Your task to perform on an android device: Search for Italian restaurants on Maps Image 0: 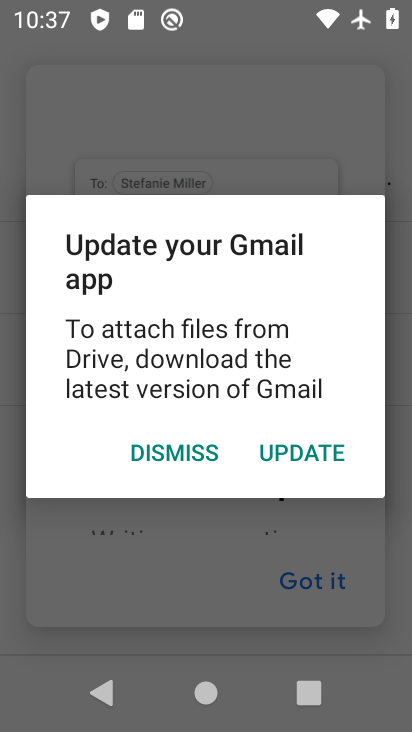
Step 0: press home button
Your task to perform on an android device: Search for Italian restaurants on Maps Image 1: 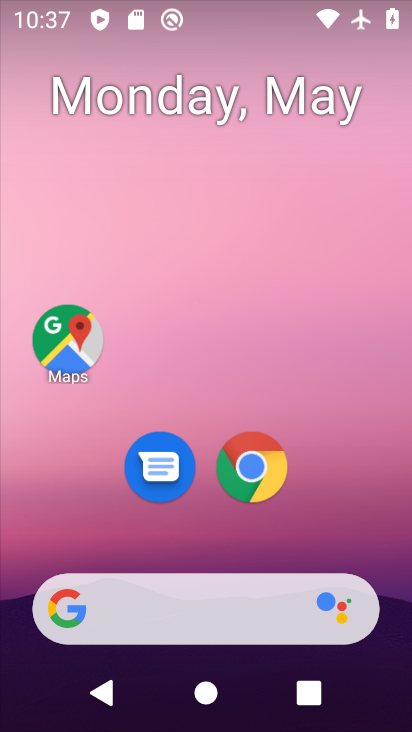
Step 1: click (60, 331)
Your task to perform on an android device: Search for Italian restaurants on Maps Image 2: 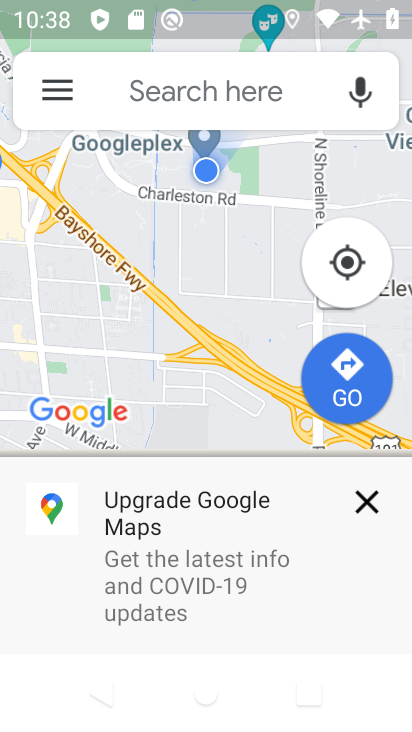
Step 2: click (172, 85)
Your task to perform on an android device: Search for Italian restaurants on Maps Image 3: 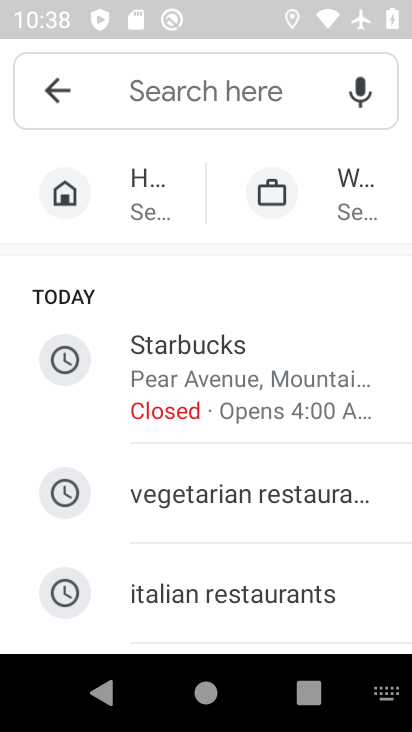
Step 3: type "italian restaurant"
Your task to perform on an android device: Search for Italian restaurants on Maps Image 4: 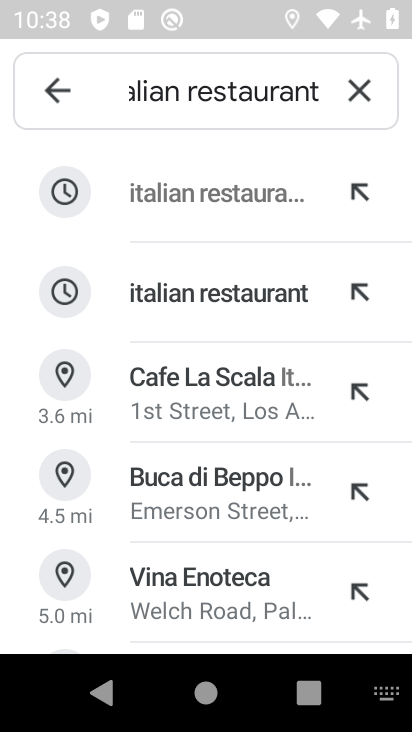
Step 4: click (167, 200)
Your task to perform on an android device: Search for Italian restaurants on Maps Image 5: 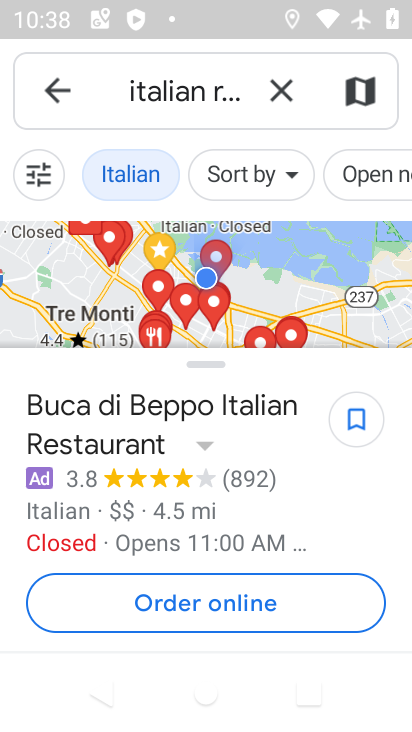
Step 5: task complete